Your task to perform on an android device: Open calendar and show me the first week of next month Image 0: 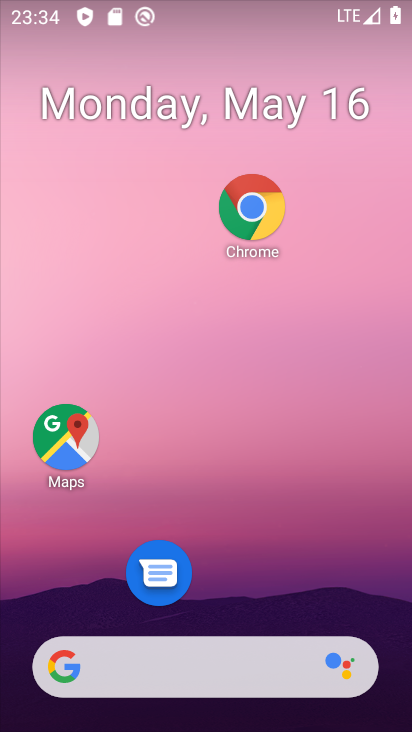
Step 0: drag from (290, 619) to (324, 0)
Your task to perform on an android device: Open calendar and show me the first week of next month Image 1: 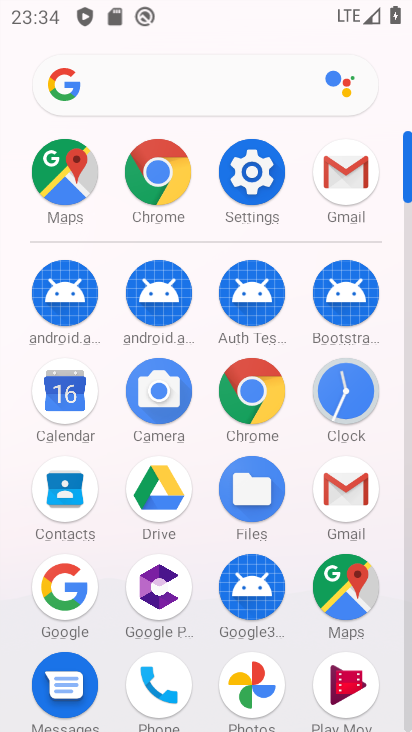
Step 1: click (59, 375)
Your task to perform on an android device: Open calendar and show me the first week of next month Image 2: 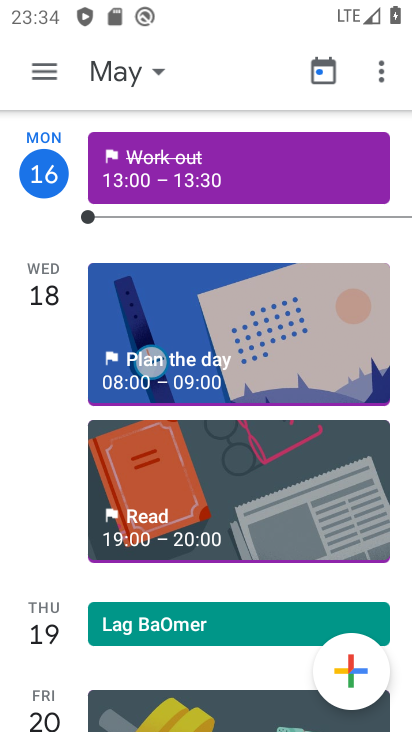
Step 2: click (147, 74)
Your task to perform on an android device: Open calendar and show me the first week of next month Image 3: 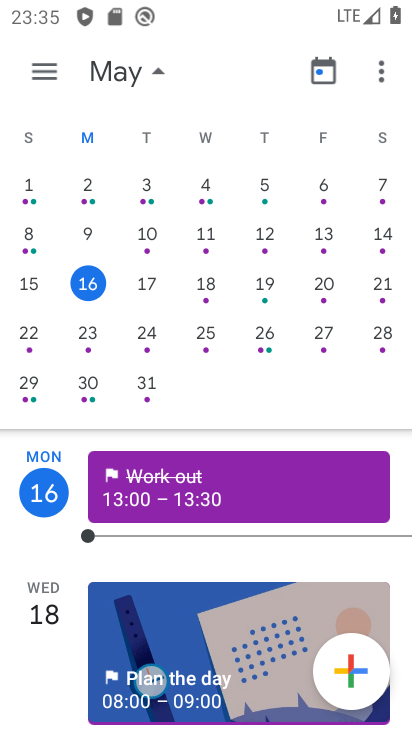
Step 3: drag from (343, 284) to (0, 258)
Your task to perform on an android device: Open calendar and show me the first week of next month Image 4: 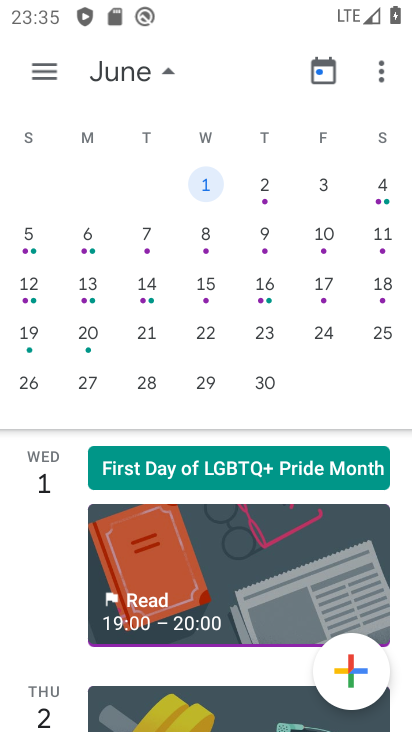
Step 4: click (327, 189)
Your task to perform on an android device: Open calendar and show me the first week of next month Image 5: 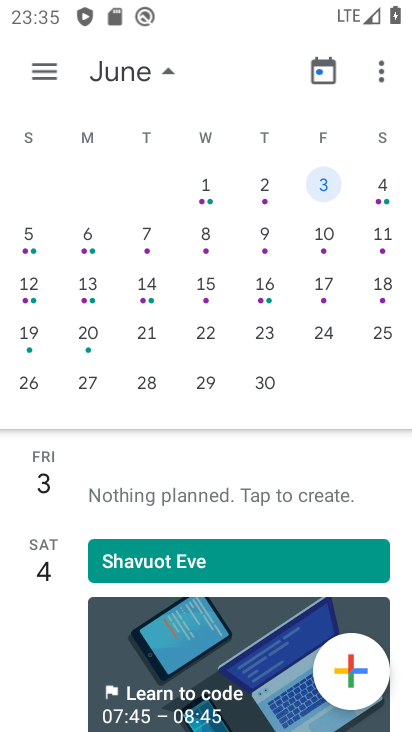
Step 5: task complete